Your task to perform on an android device: set the timer Image 0: 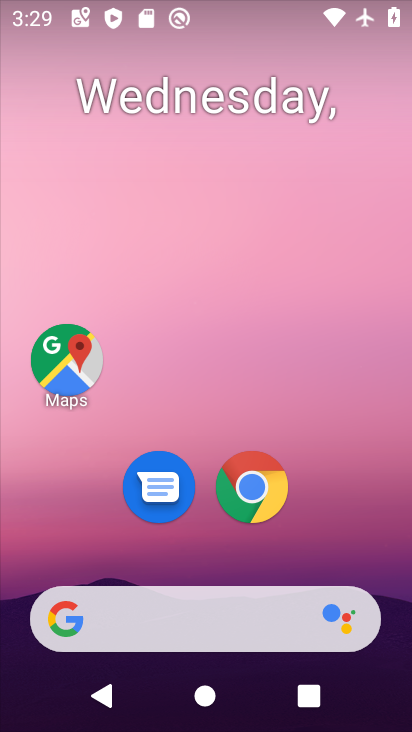
Step 0: drag from (315, 509) to (279, 2)
Your task to perform on an android device: set the timer Image 1: 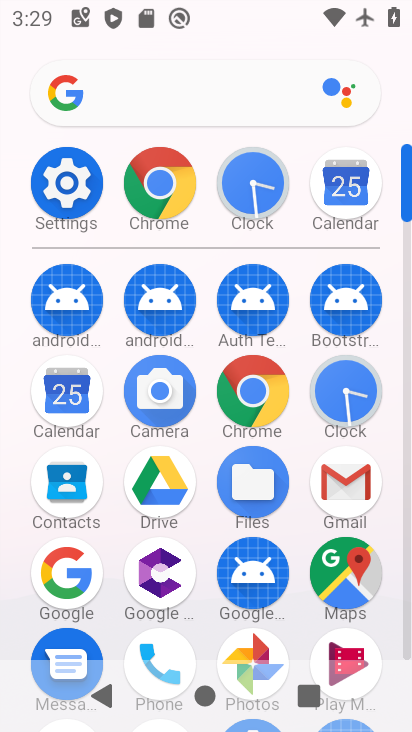
Step 1: click (360, 443)
Your task to perform on an android device: set the timer Image 2: 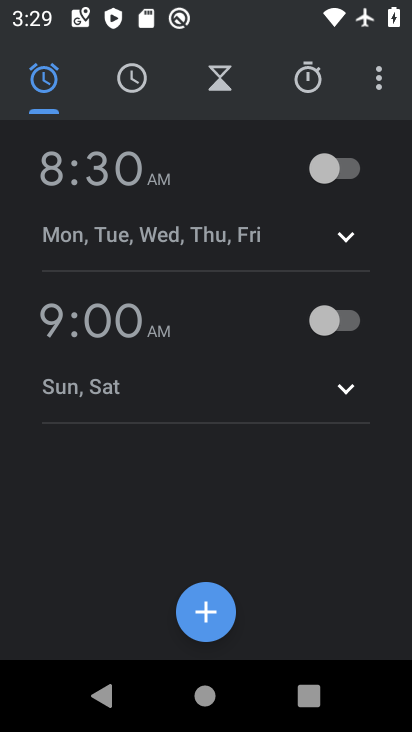
Step 2: click (237, 76)
Your task to perform on an android device: set the timer Image 3: 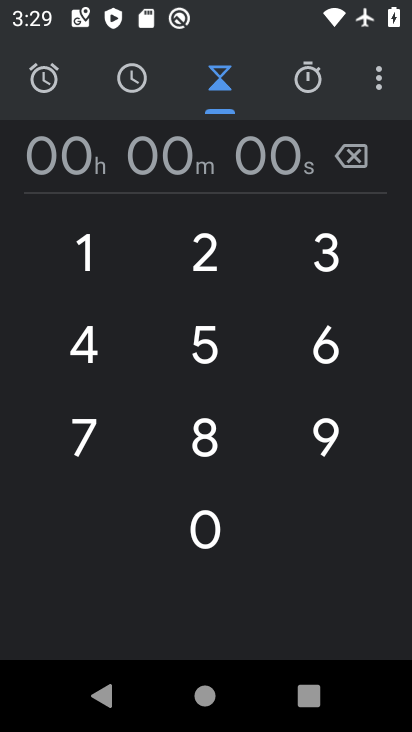
Step 3: click (185, 264)
Your task to perform on an android device: set the timer Image 4: 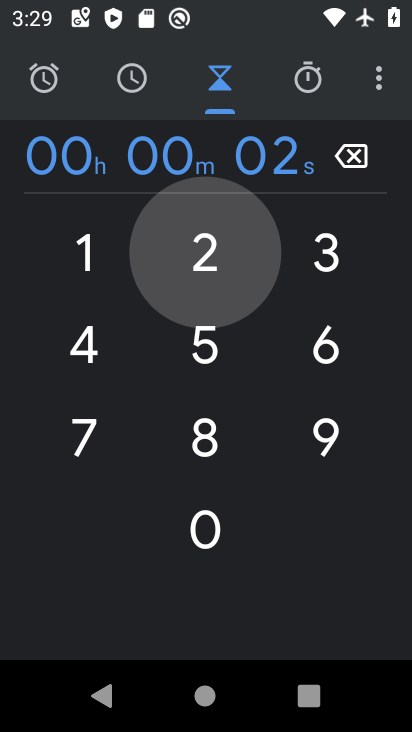
Step 4: click (168, 346)
Your task to perform on an android device: set the timer Image 5: 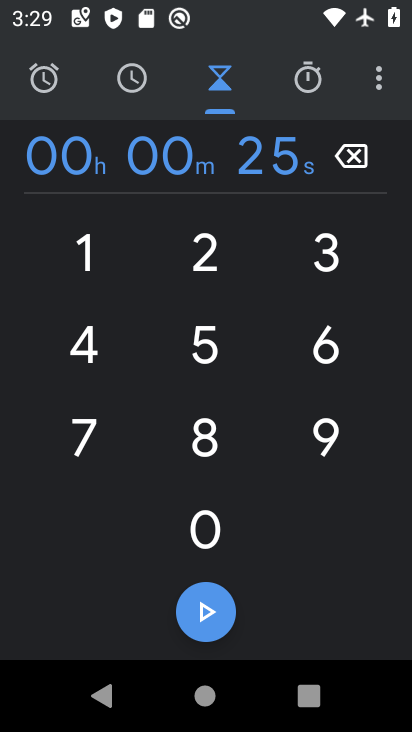
Step 5: click (211, 268)
Your task to perform on an android device: set the timer Image 6: 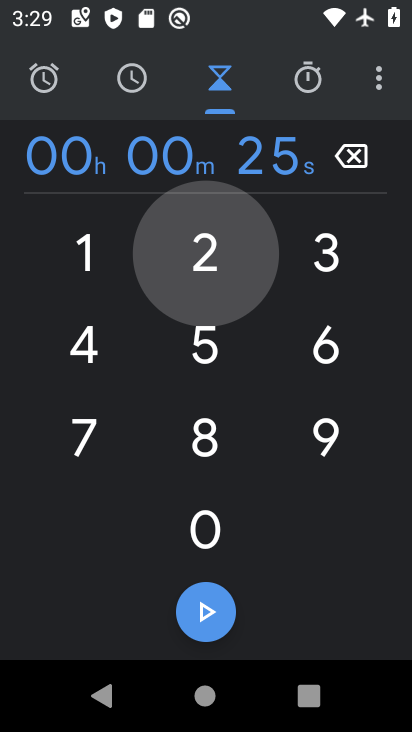
Step 6: click (214, 355)
Your task to perform on an android device: set the timer Image 7: 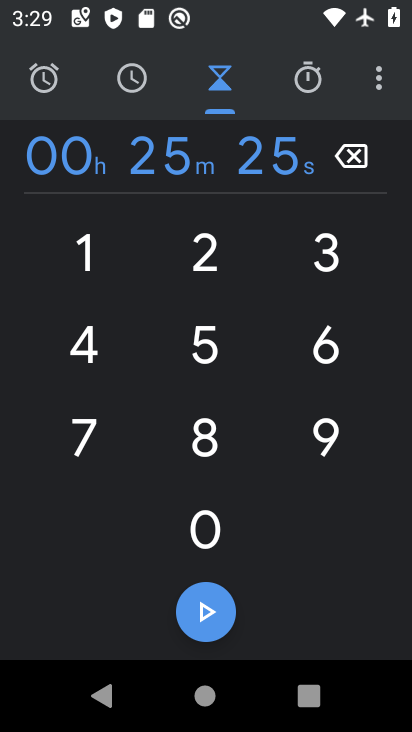
Step 7: click (221, 264)
Your task to perform on an android device: set the timer Image 8: 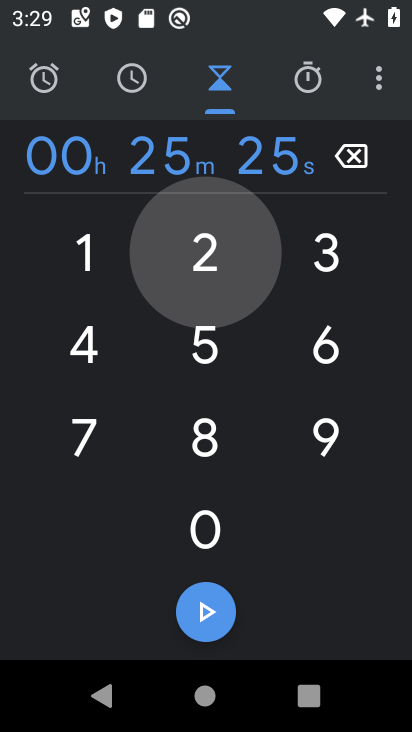
Step 8: click (207, 347)
Your task to perform on an android device: set the timer Image 9: 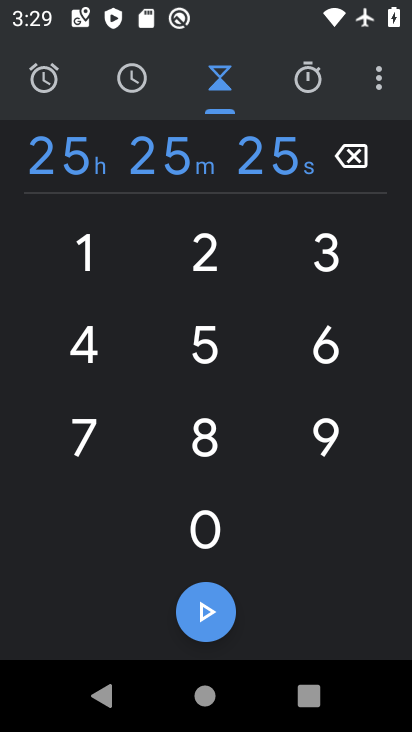
Step 9: click (212, 606)
Your task to perform on an android device: set the timer Image 10: 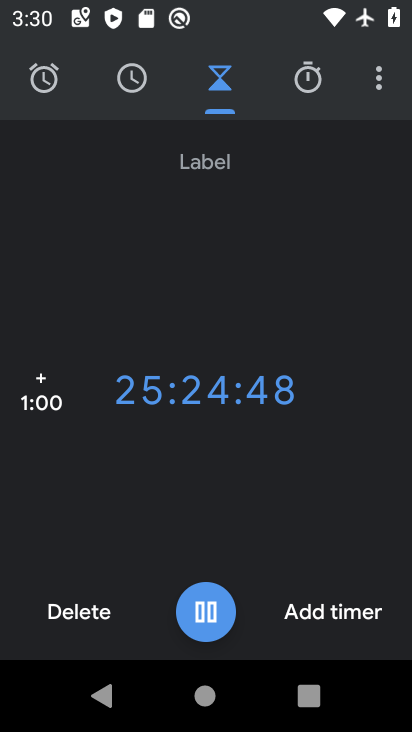
Step 10: task complete